Your task to perform on an android device: Go to privacy settings Image 0: 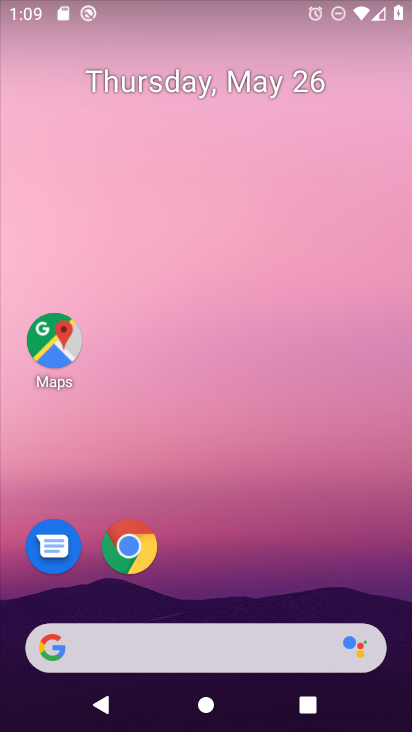
Step 0: drag from (222, 617) to (210, 231)
Your task to perform on an android device: Go to privacy settings Image 1: 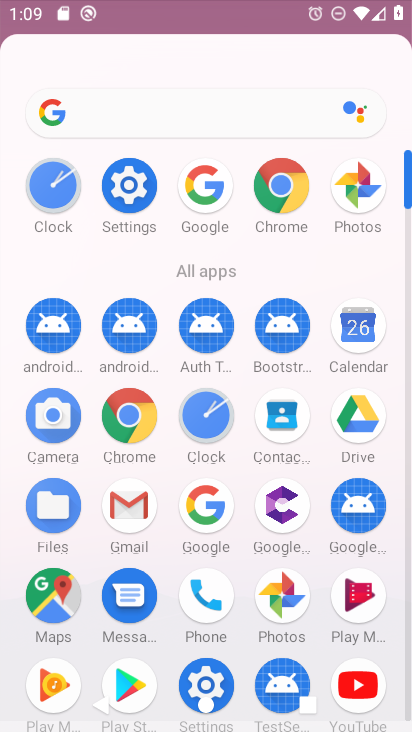
Step 1: click (210, 231)
Your task to perform on an android device: Go to privacy settings Image 2: 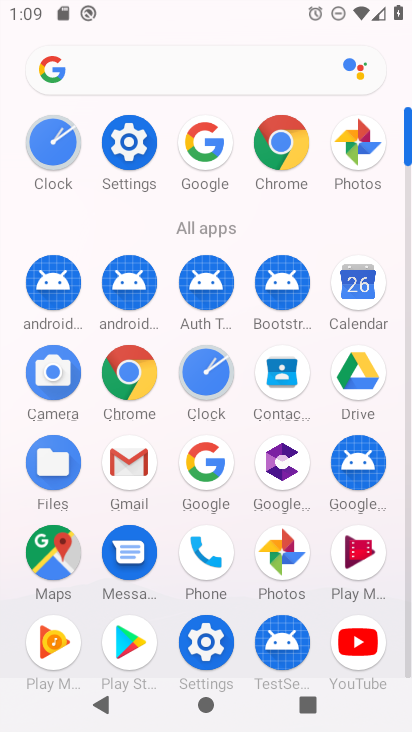
Step 2: click (127, 136)
Your task to perform on an android device: Go to privacy settings Image 3: 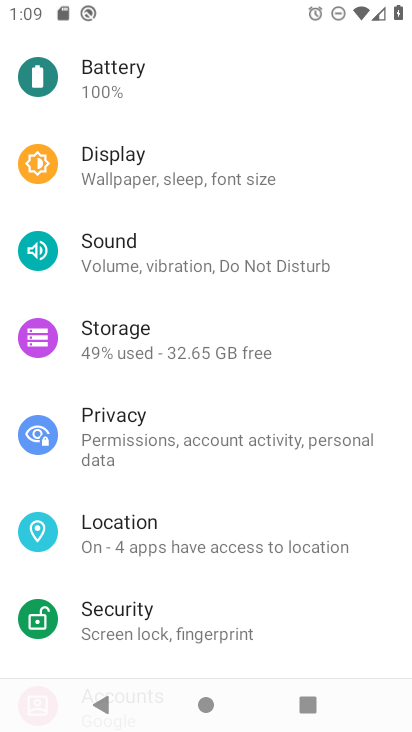
Step 3: click (132, 407)
Your task to perform on an android device: Go to privacy settings Image 4: 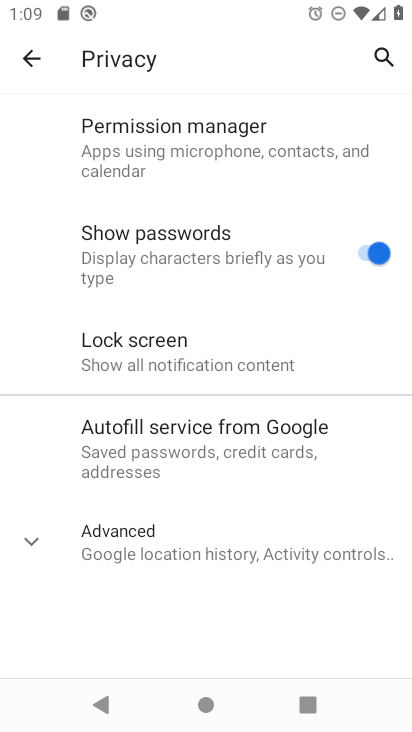
Step 4: click (133, 537)
Your task to perform on an android device: Go to privacy settings Image 5: 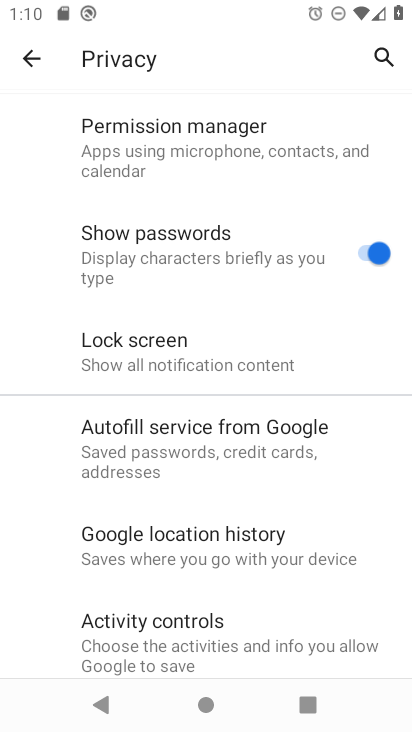
Step 5: task complete